Your task to perform on an android device: add a contact in the contacts app Image 0: 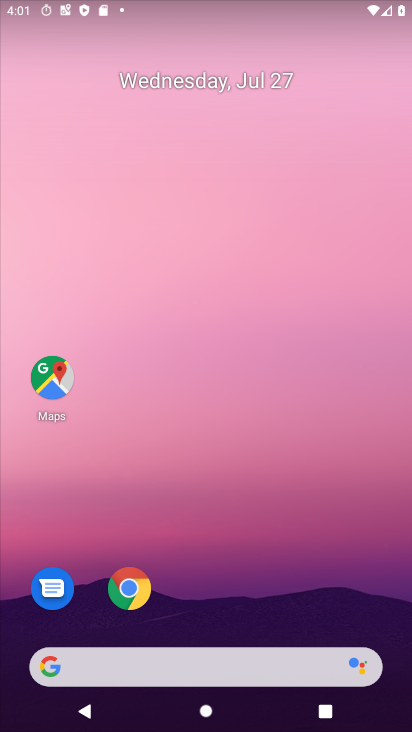
Step 0: press home button
Your task to perform on an android device: add a contact in the contacts app Image 1: 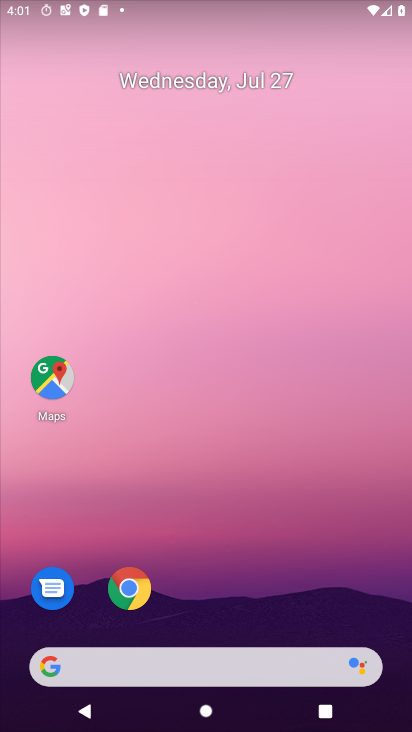
Step 1: drag from (249, 624) to (276, 147)
Your task to perform on an android device: add a contact in the contacts app Image 2: 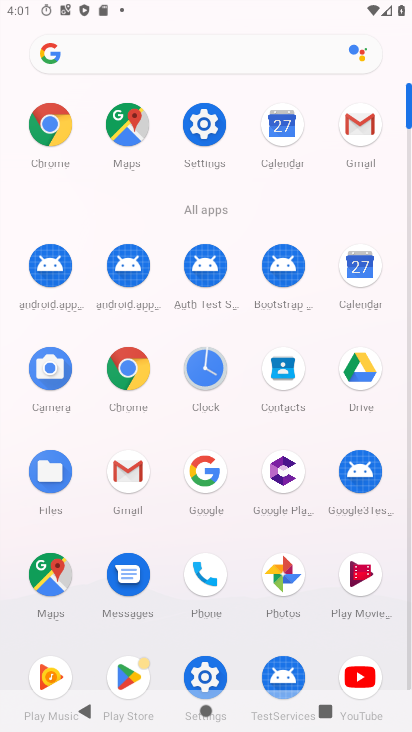
Step 2: click (288, 375)
Your task to perform on an android device: add a contact in the contacts app Image 3: 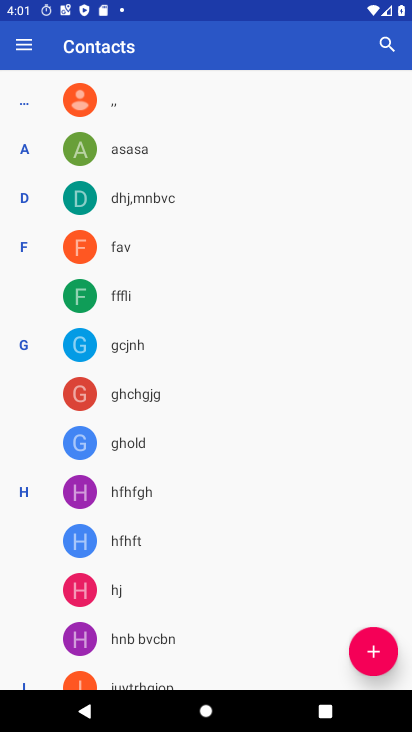
Step 3: click (382, 657)
Your task to perform on an android device: add a contact in the contacts app Image 4: 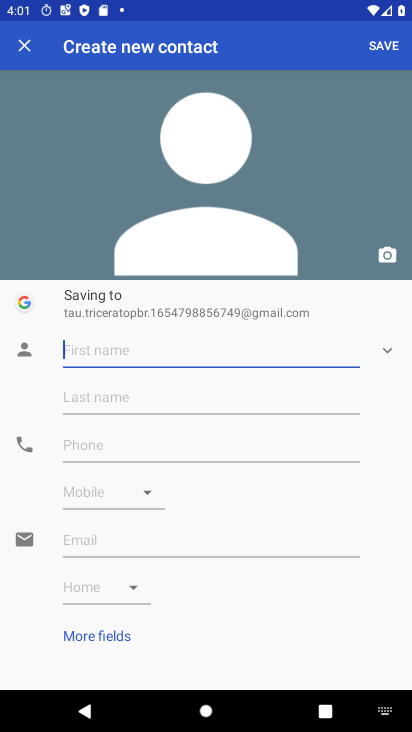
Step 4: type "hhhjjjjjj"
Your task to perform on an android device: add a contact in the contacts app Image 5: 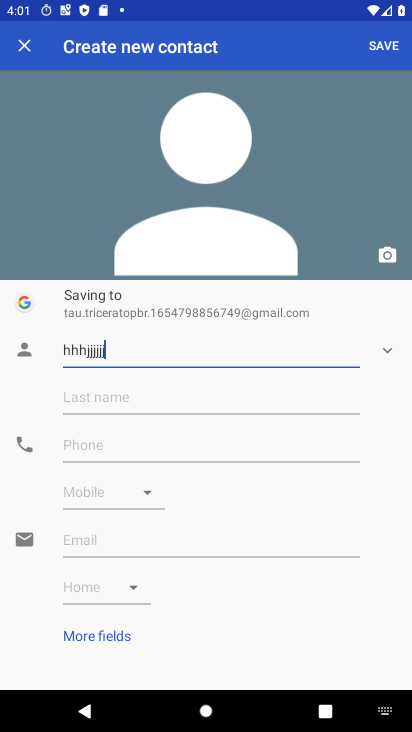
Step 5: click (211, 450)
Your task to perform on an android device: add a contact in the contacts app Image 6: 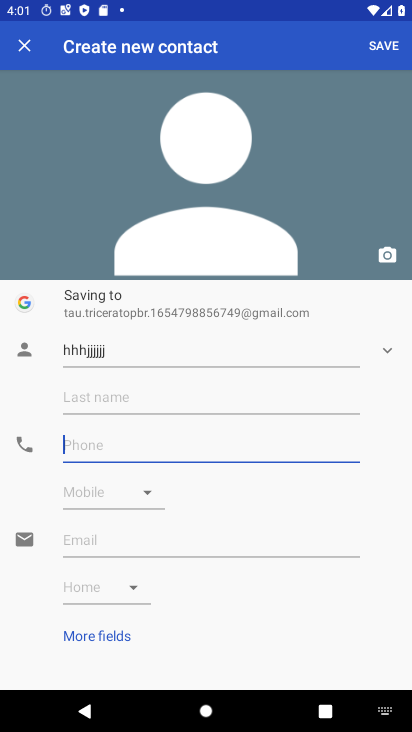
Step 6: type "7777777"
Your task to perform on an android device: add a contact in the contacts app Image 7: 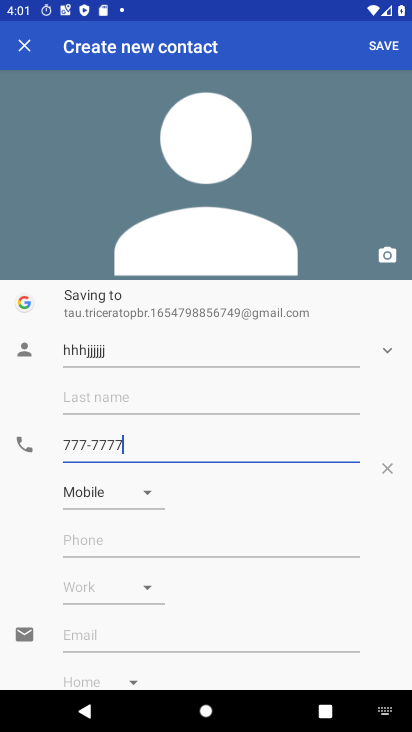
Step 7: click (385, 38)
Your task to perform on an android device: add a contact in the contacts app Image 8: 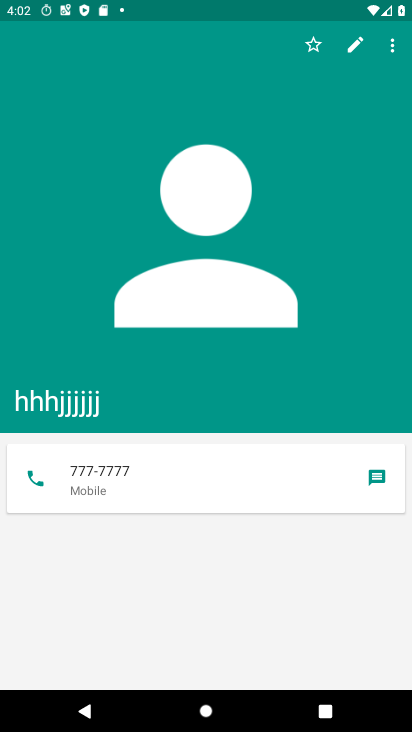
Step 8: task complete